Your task to perform on an android device: Search for vegetarian restaurants on Maps Image 0: 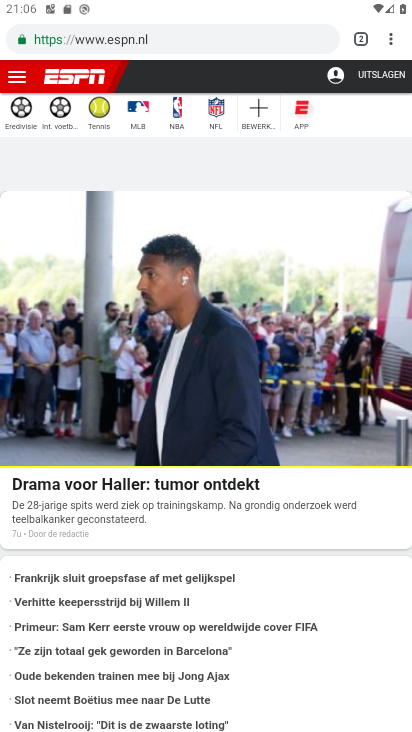
Step 0: press home button
Your task to perform on an android device: Search for vegetarian restaurants on Maps Image 1: 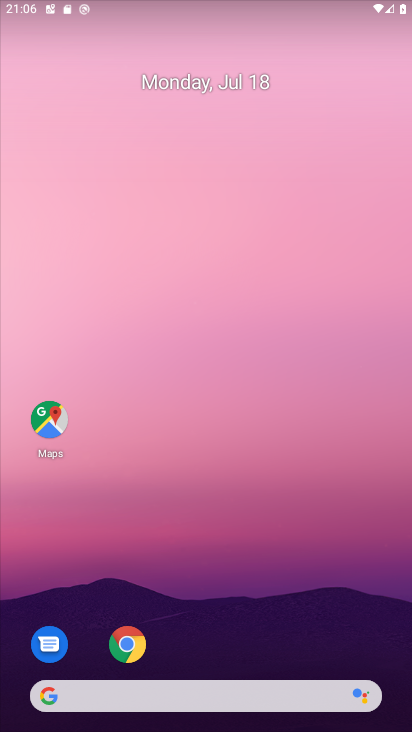
Step 1: drag from (199, 647) to (286, 128)
Your task to perform on an android device: Search for vegetarian restaurants on Maps Image 2: 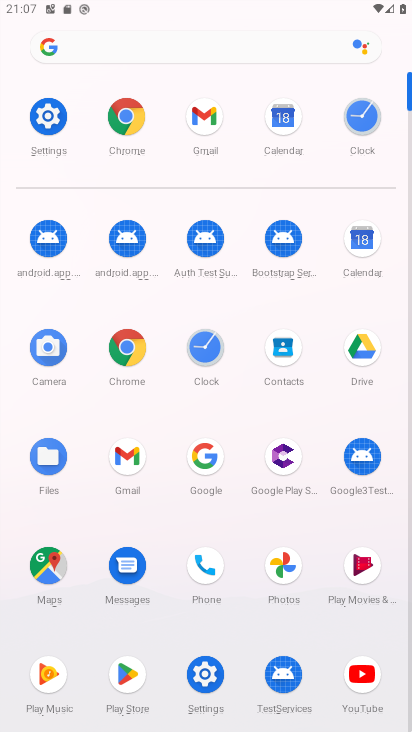
Step 2: click (50, 588)
Your task to perform on an android device: Search for vegetarian restaurants on Maps Image 3: 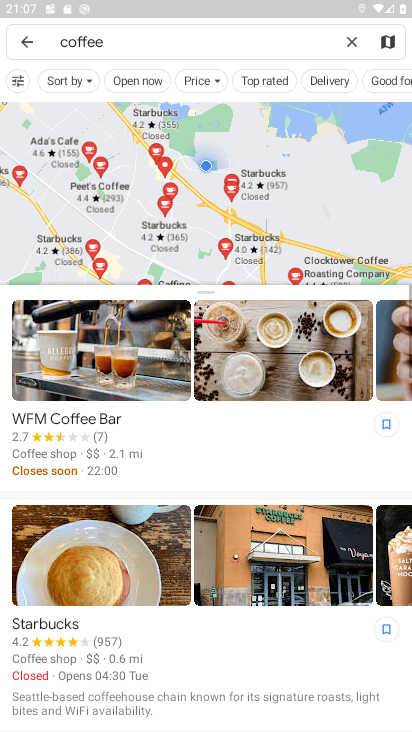
Step 3: click (347, 41)
Your task to perform on an android device: Search for vegetarian restaurants on Maps Image 4: 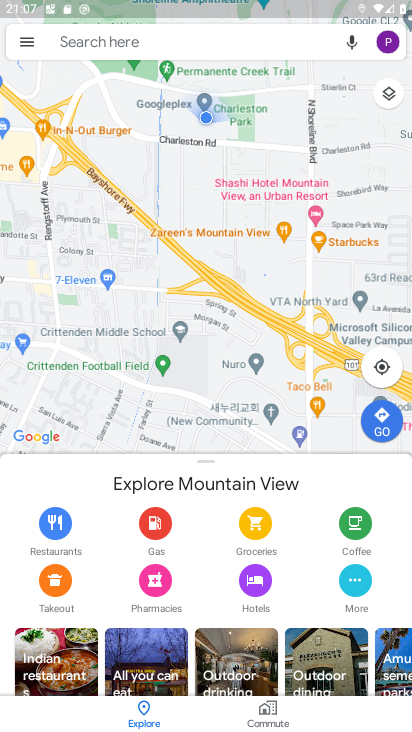
Step 4: type "vegetarian"
Your task to perform on an android device: Search for vegetarian restaurants on Maps Image 5: 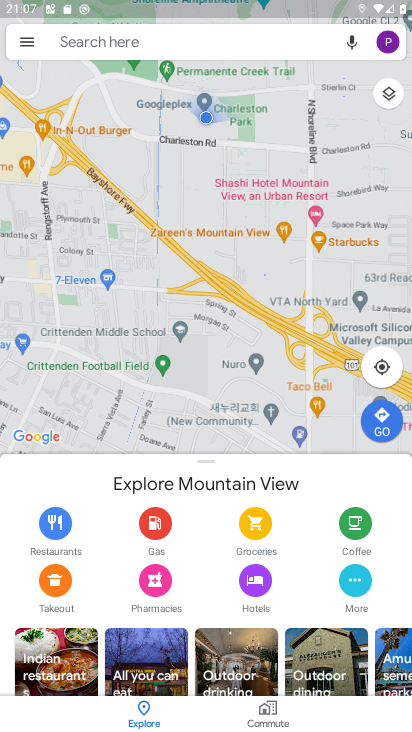
Step 5: task complete